Your task to perform on an android device: View the shopping cart on walmart. Add acer predator to the cart on walmart Image 0: 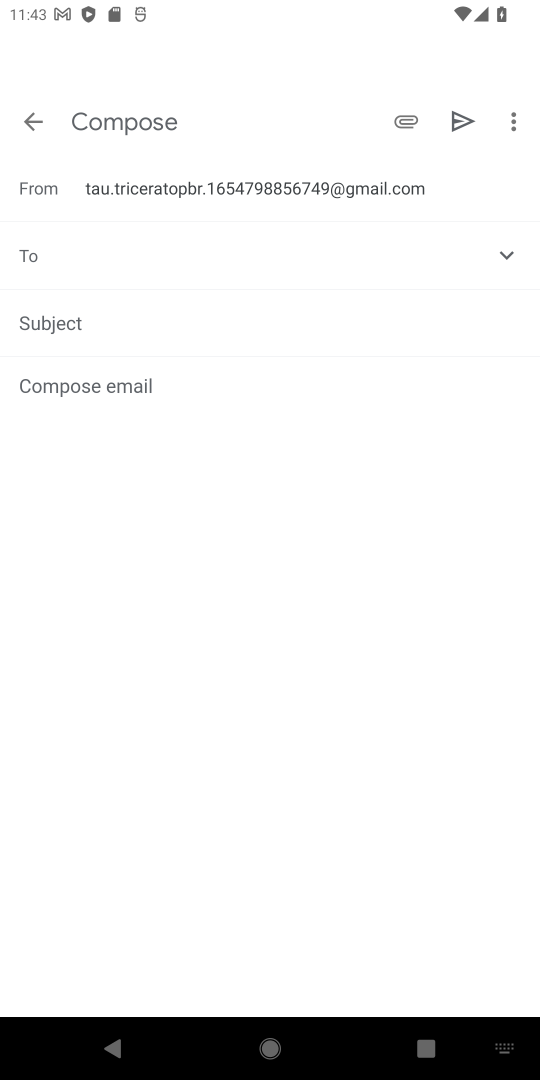
Step 0: press home button
Your task to perform on an android device: View the shopping cart on walmart. Add acer predator to the cart on walmart Image 1: 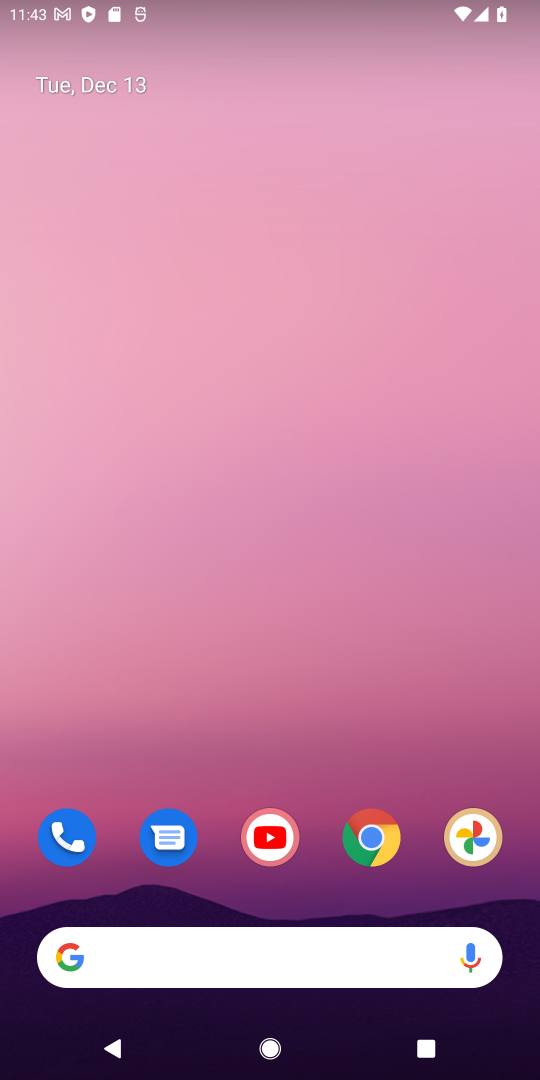
Step 1: click (384, 858)
Your task to perform on an android device: View the shopping cart on walmart. Add acer predator to the cart on walmart Image 2: 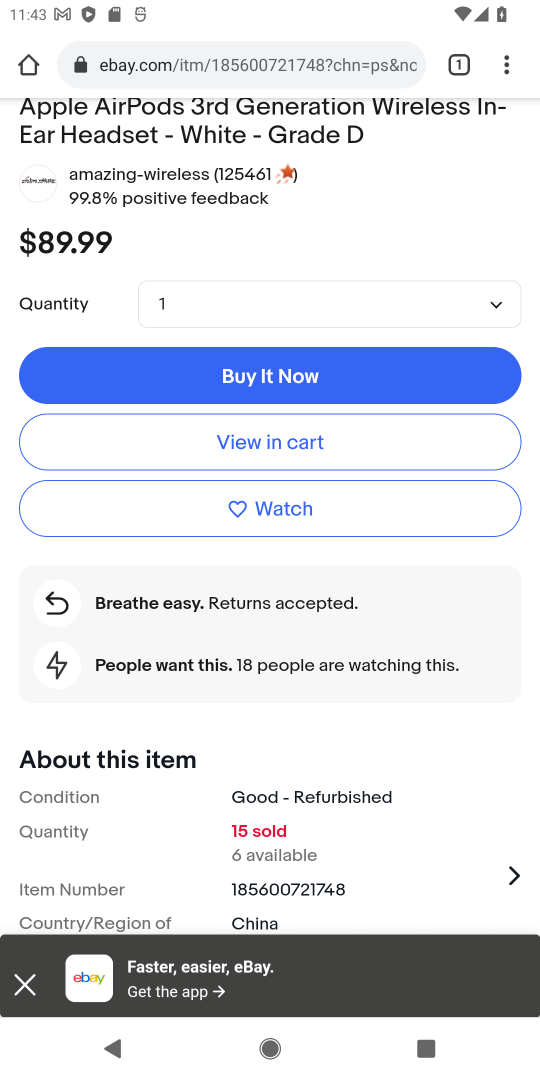
Step 2: click (204, 72)
Your task to perform on an android device: View the shopping cart on walmart. Add acer predator to the cart on walmart Image 3: 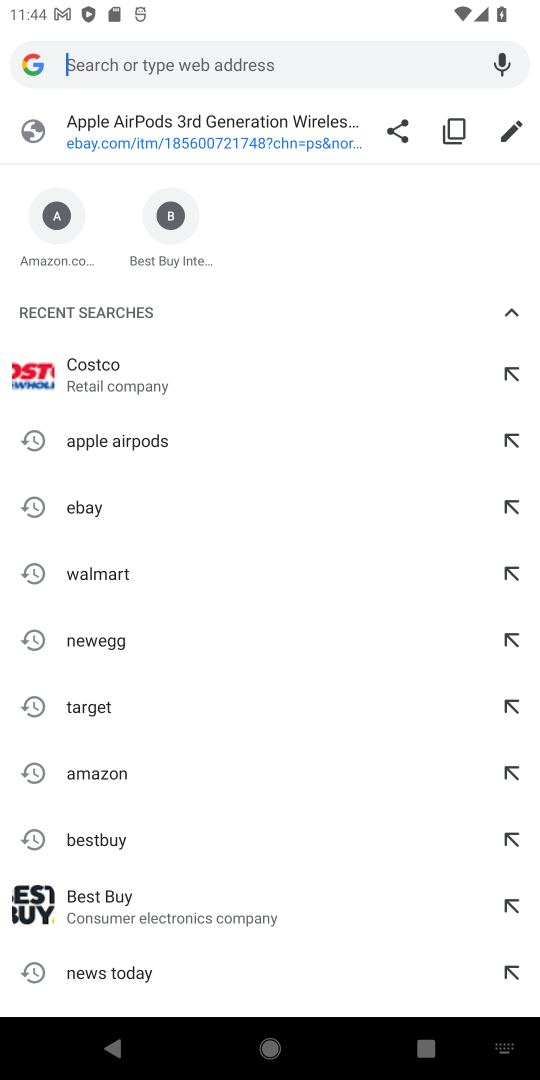
Step 3: type "walmart"
Your task to perform on an android device: View the shopping cart on walmart. Add acer predator to the cart on walmart Image 4: 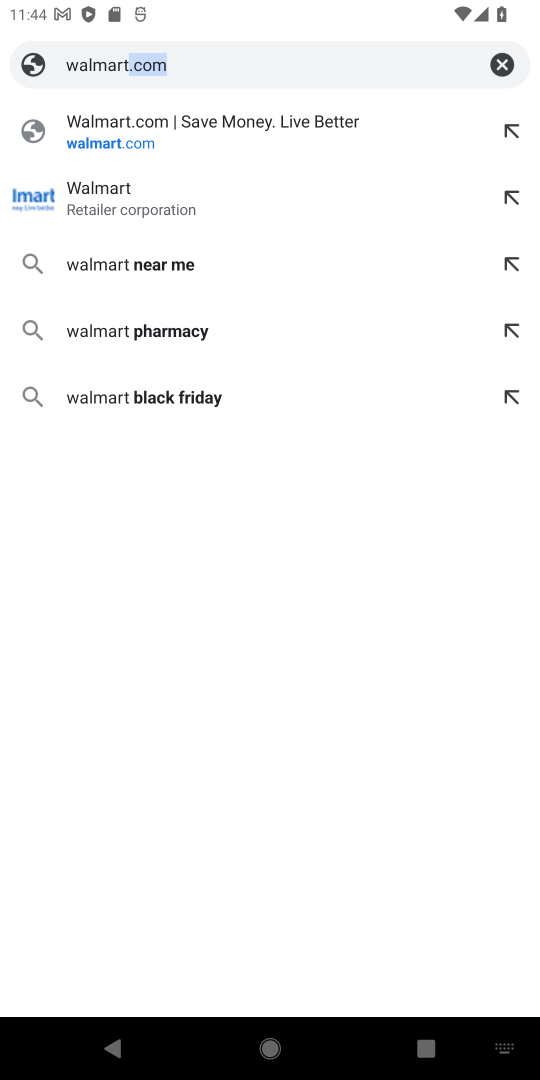
Step 4: click (195, 151)
Your task to perform on an android device: View the shopping cart on walmart. Add acer predator to the cart on walmart Image 5: 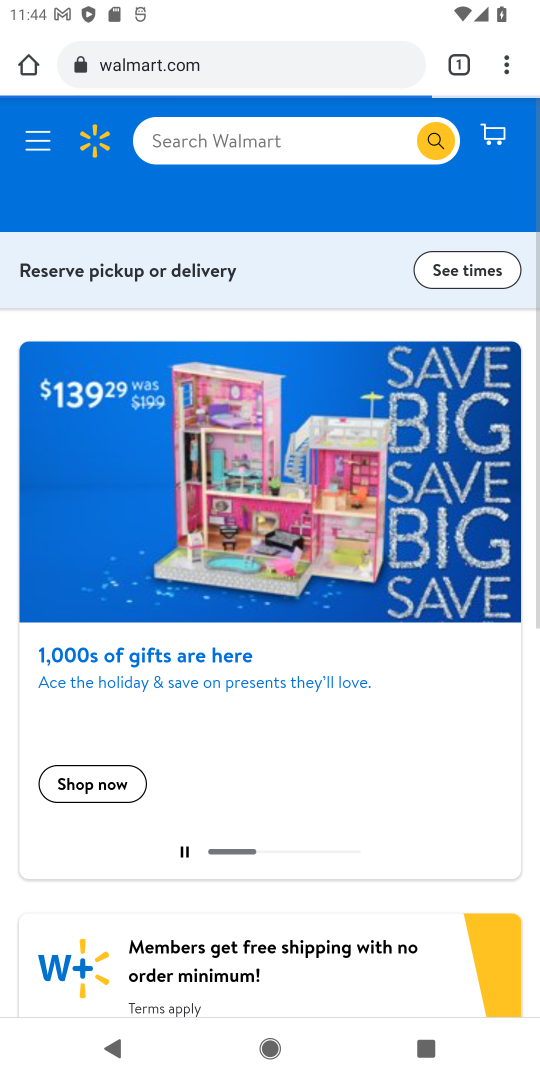
Step 5: click (209, 129)
Your task to perform on an android device: View the shopping cart on walmart. Add acer predator to the cart on walmart Image 6: 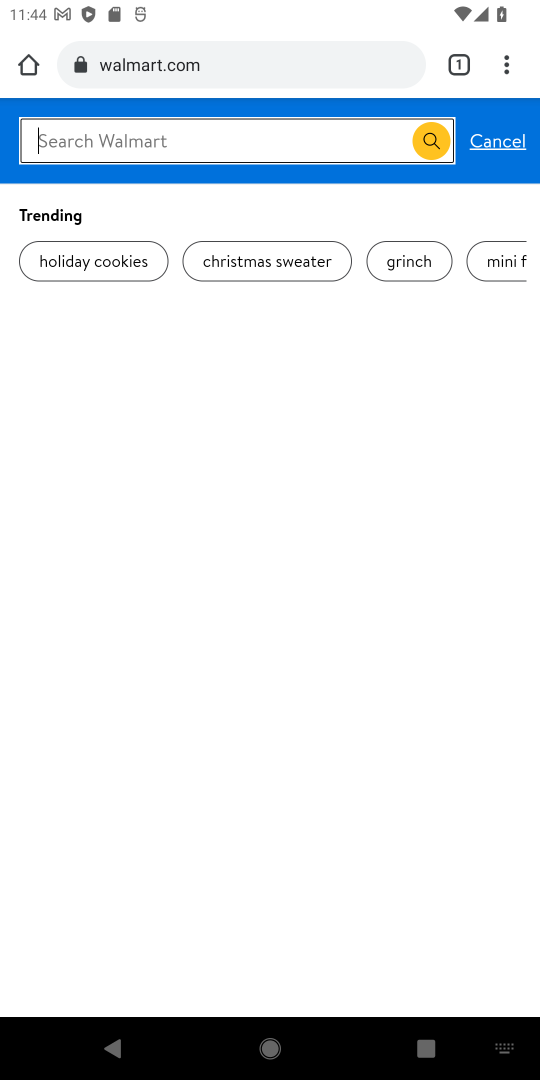
Step 6: type "acer predator"
Your task to perform on an android device: View the shopping cart on walmart. Add acer predator to the cart on walmart Image 7: 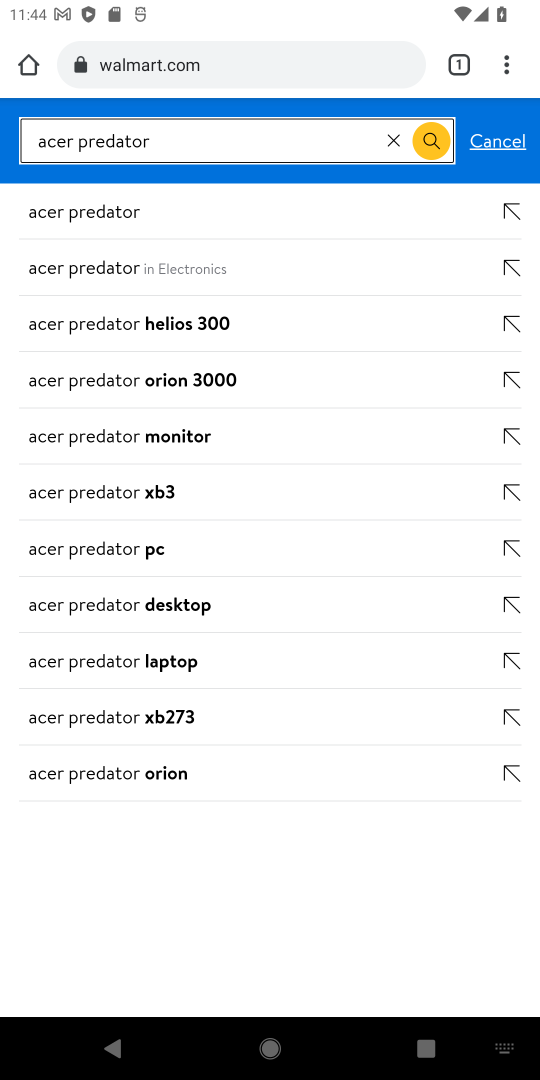
Step 7: click (176, 231)
Your task to perform on an android device: View the shopping cart on walmart. Add acer predator to the cart on walmart Image 8: 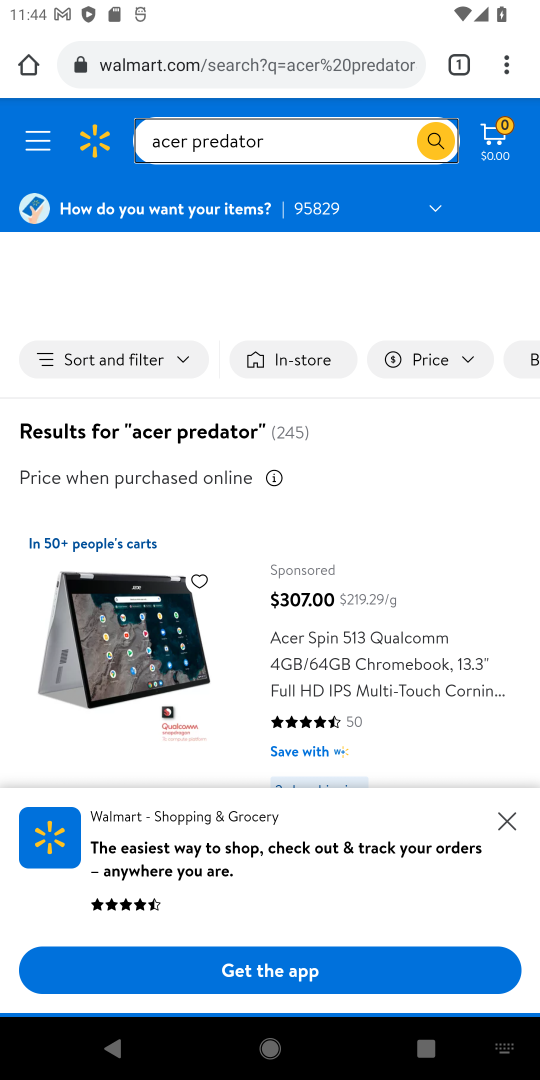
Step 8: click (500, 827)
Your task to perform on an android device: View the shopping cart on walmart. Add acer predator to the cart on walmart Image 9: 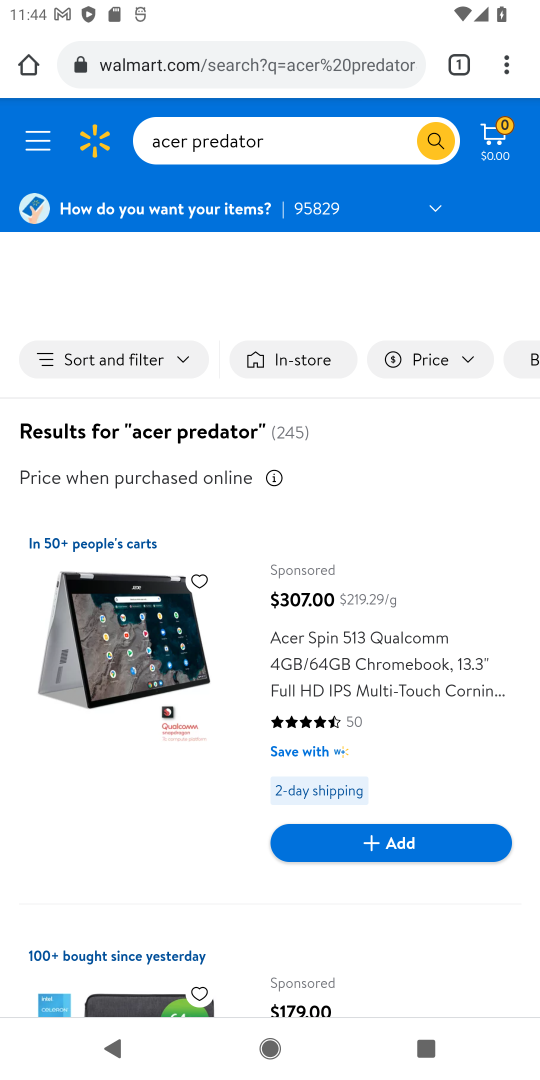
Step 9: click (471, 835)
Your task to perform on an android device: View the shopping cart on walmart. Add acer predator to the cart on walmart Image 10: 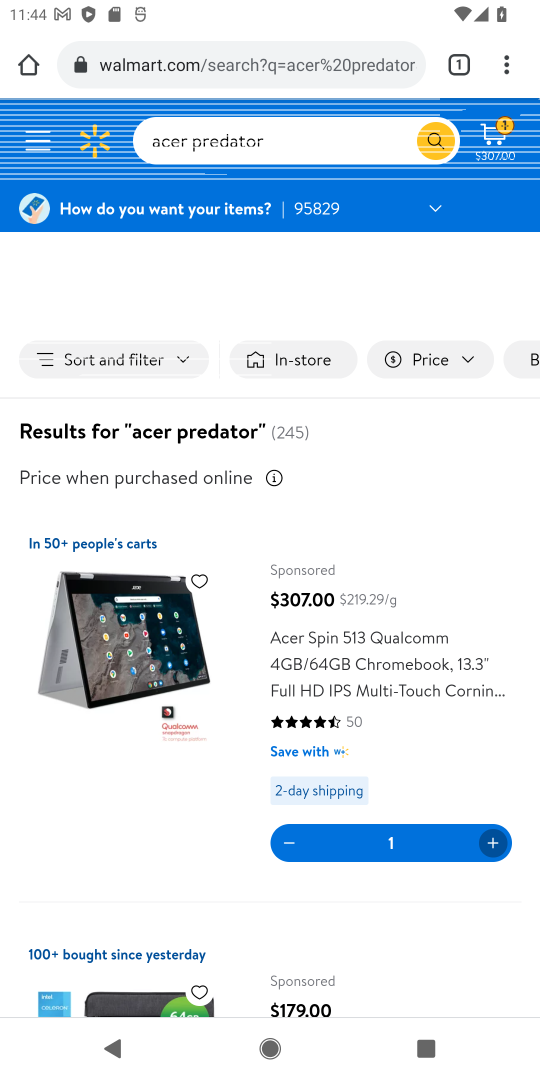
Step 10: task complete